Your task to perform on an android device: toggle wifi Image 0: 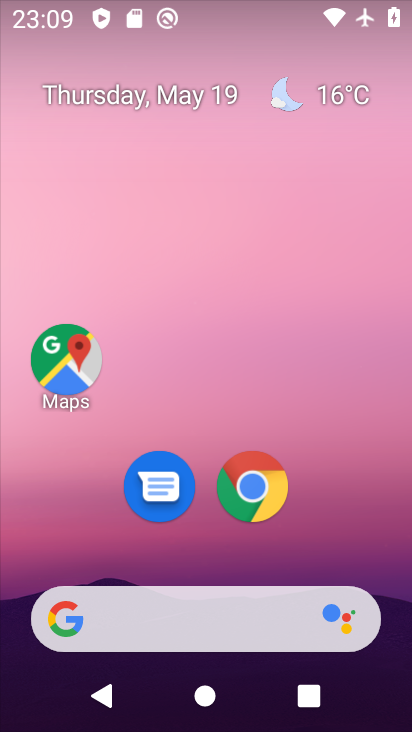
Step 0: drag from (404, 516) to (330, 88)
Your task to perform on an android device: toggle wifi Image 1: 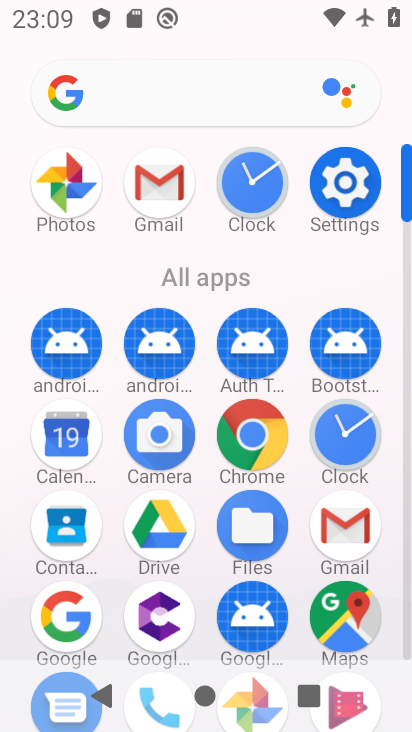
Step 1: click (364, 198)
Your task to perform on an android device: toggle wifi Image 2: 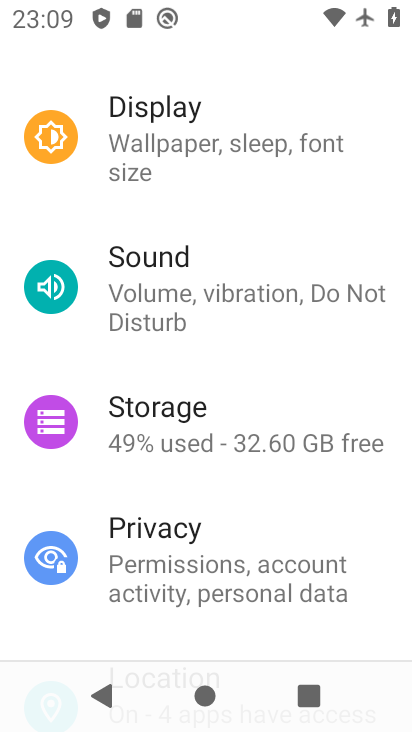
Step 2: drag from (240, 529) to (243, 670)
Your task to perform on an android device: toggle wifi Image 3: 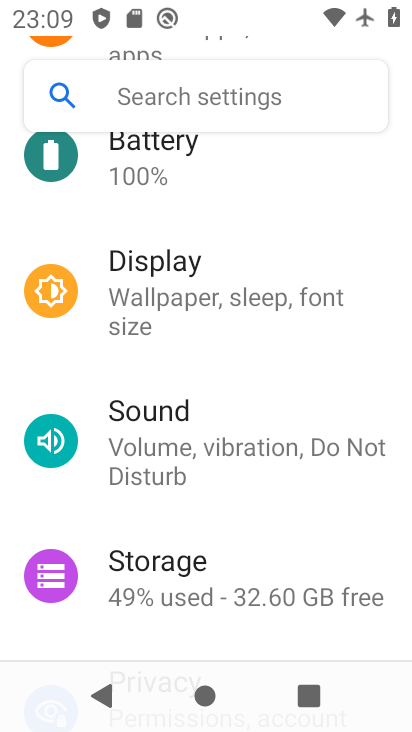
Step 3: drag from (269, 254) to (271, 639)
Your task to perform on an android device: toggle wifi Image 4: 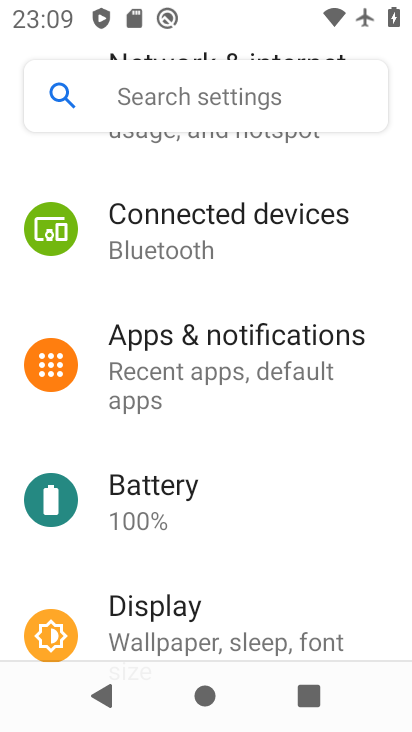
Step 4: drag from (213, 183) to (206, 640)
Your task to perform on an android device: toggle wifi Image 5: 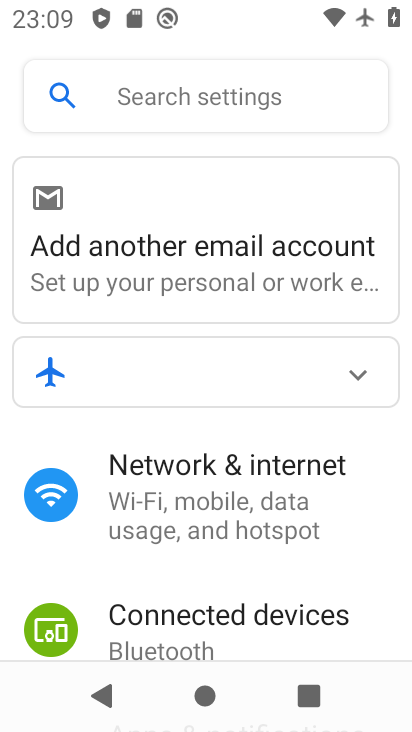
Step 5: click (244, 534)
Your task to perform on an android device: toggle wifi Image 6: 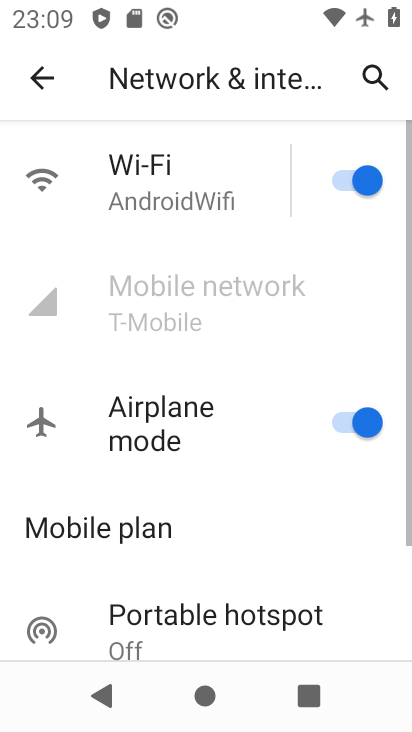
Step 6: click (341, 176)
Your task to perform on an android device: toggle wifi Image 7: 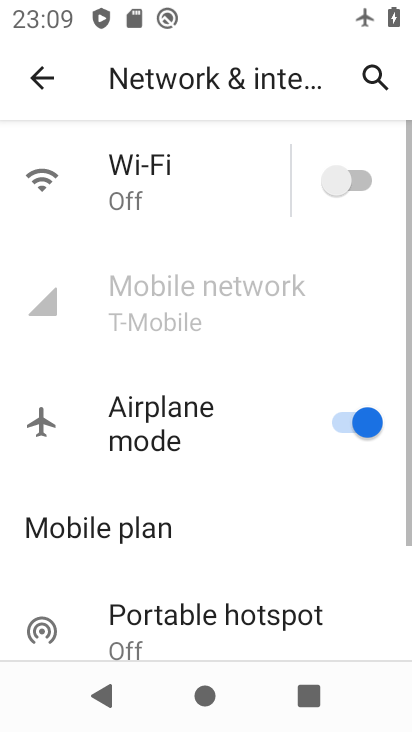
Step 7: task complete